Your task to perform on an android device: set the timer Image 0: 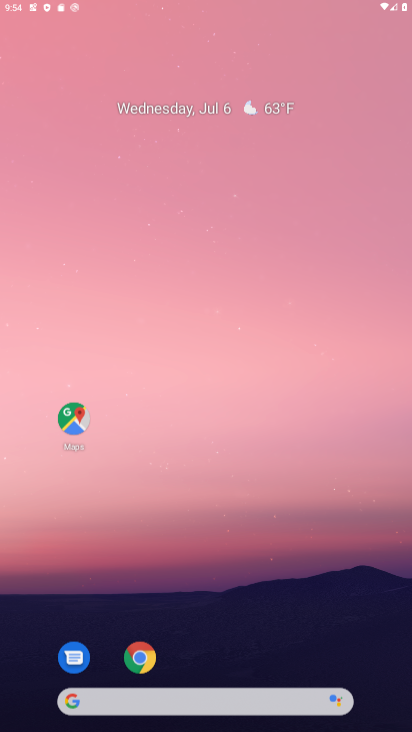
Step 0: click (266, 336)
Your task to perform on an android device: set the timer Image 1: 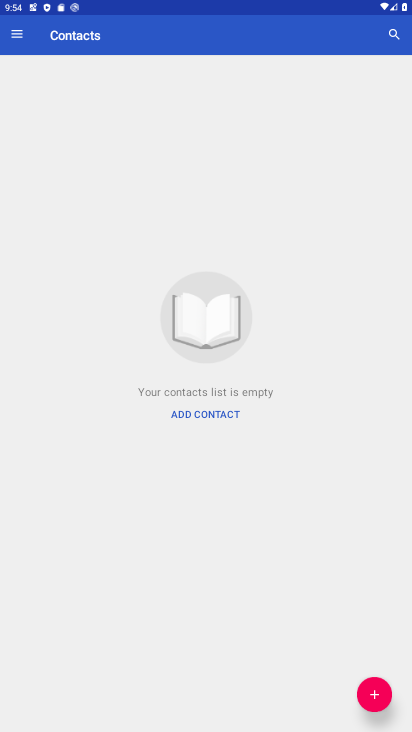
Step 1: drag from (235, 538) to (262, 350)
Your task to perform on an android device: set the timer Image 2: 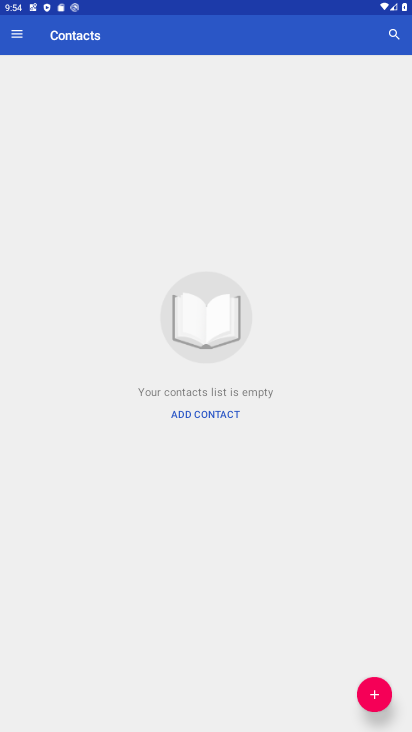
Step 2: press back button
Your task to perform on an android device: set the timer Image 3: 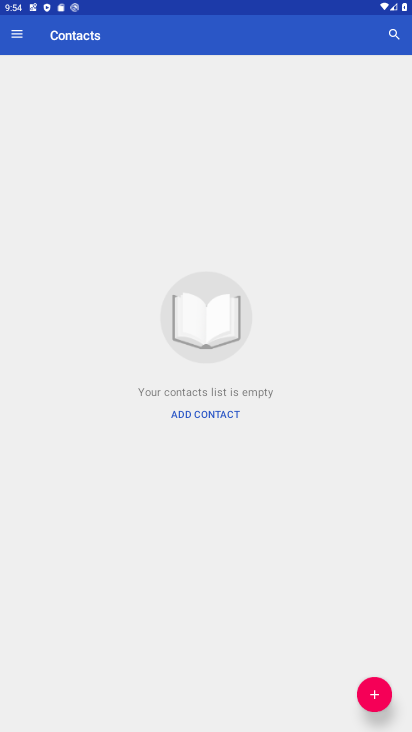
Step 3: press home button
Your task to perform on an android device: set the timer Image 4: 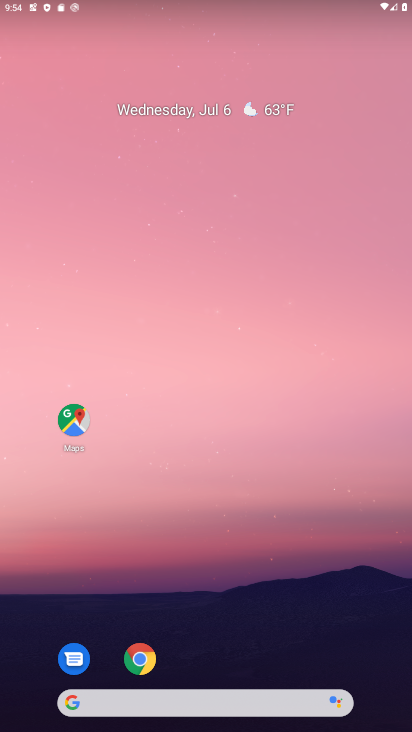
Step 4: drag from (207, 609) to (287, 198)
Your task to perform on an android device: set the timer Image 5: 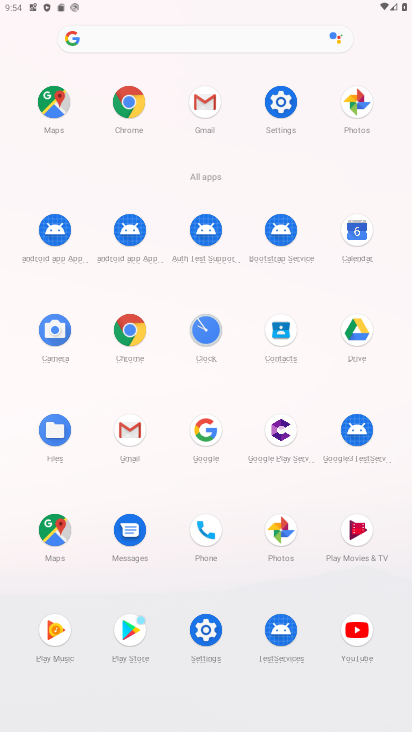
Step 5: click (196, 329)
Your task to perform on an android device: set the timer Image 6: 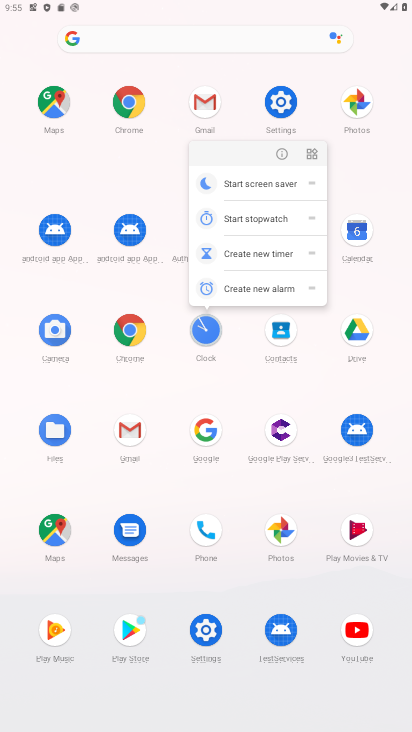
Step 6: click (278, 160)
Your task to perform on an android device: set the timer Image 7: 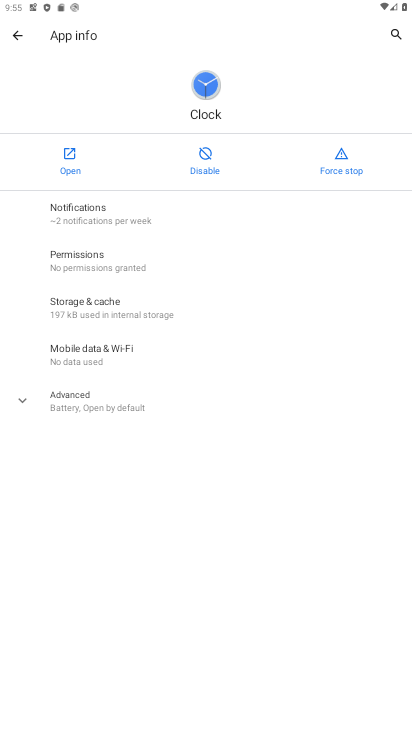
Step 7: click (72, 169)
Your task to perform on an android device: set the timer Image 8: 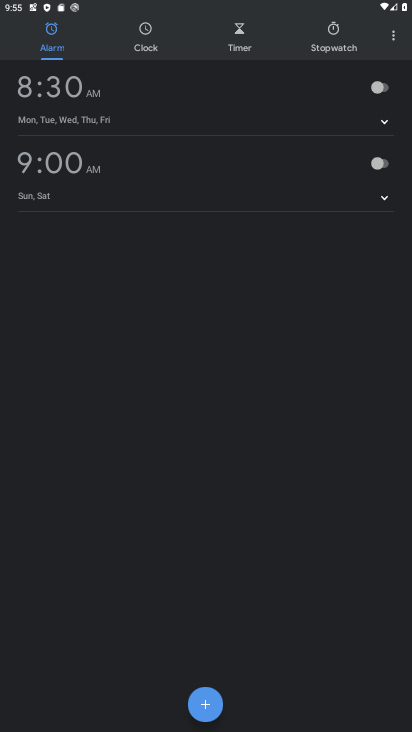
Step 8: click (249, 39)
Your task to perform on an android device: set the timer Image 9: 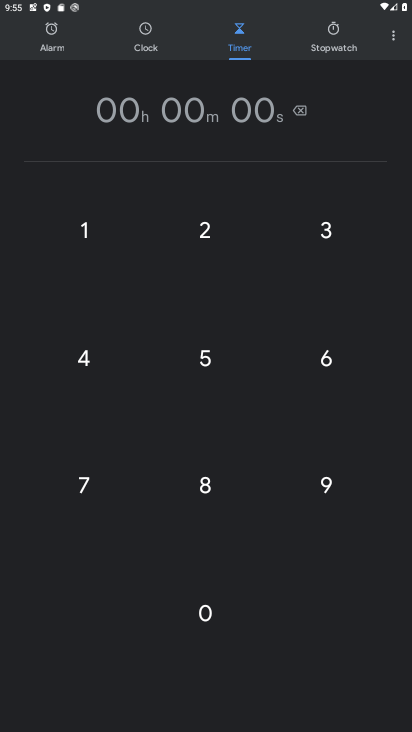
Step 9: click (201, 228)
Your task to perform on an android device: set the timer Image 10: 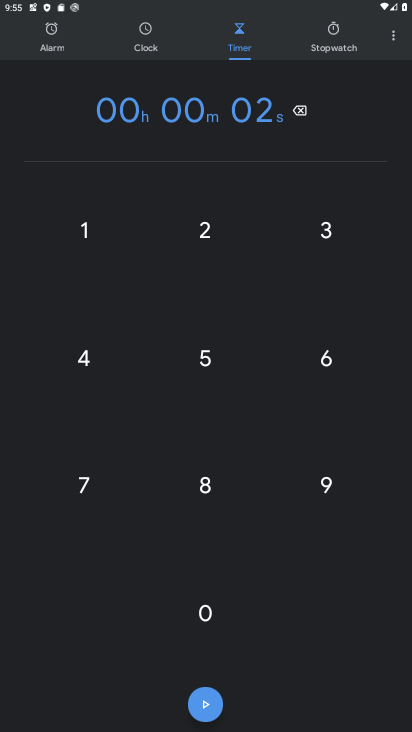
Step 10: click (314, 220)
Your task to perform on an android device: set the timer Image 11: 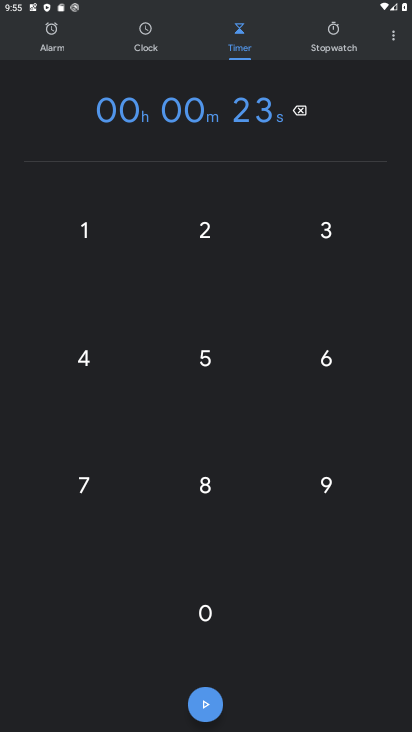
Step 11: click (207, 703)
Your task to perform on an android device: set the timer Image 12: 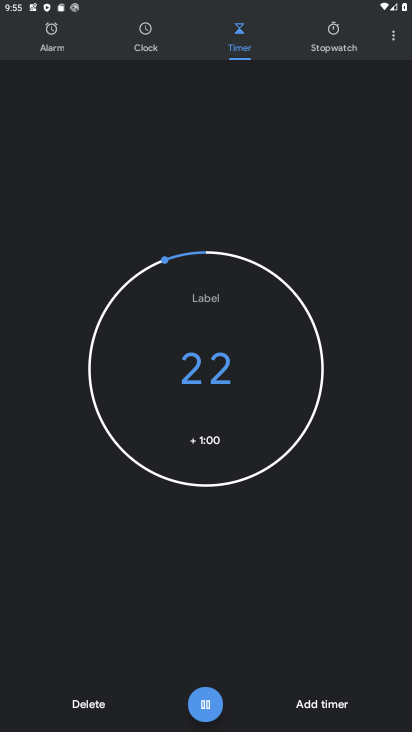
Step 12: task complete